Your task to perform on an android device: Open calendar and show me the fourth week of next month Image 0: 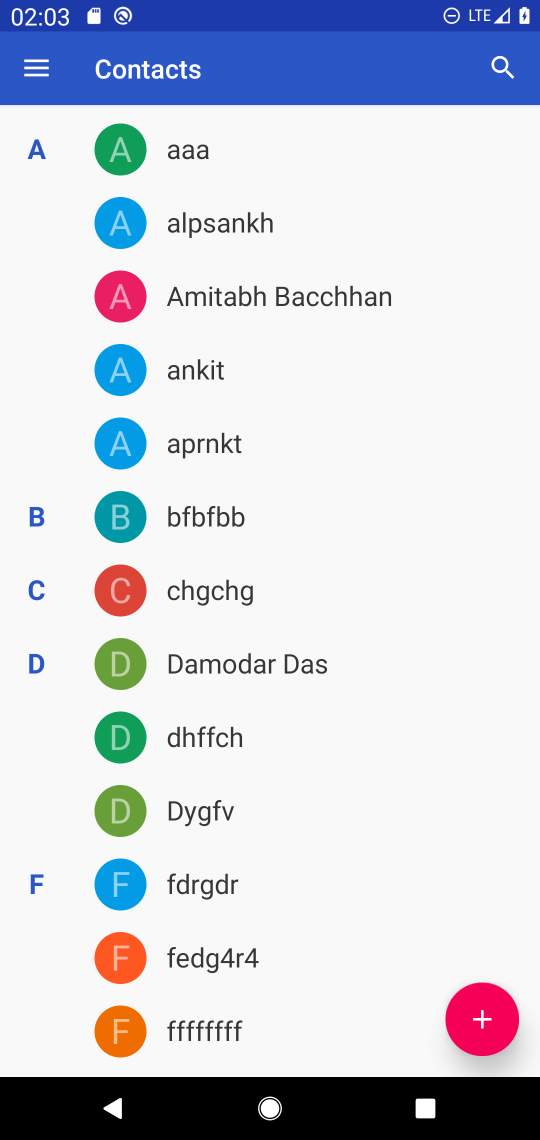
Step 0: press home button
Your task to perform on an android device: Open calendar and show me the fourth week of next month Image 1: 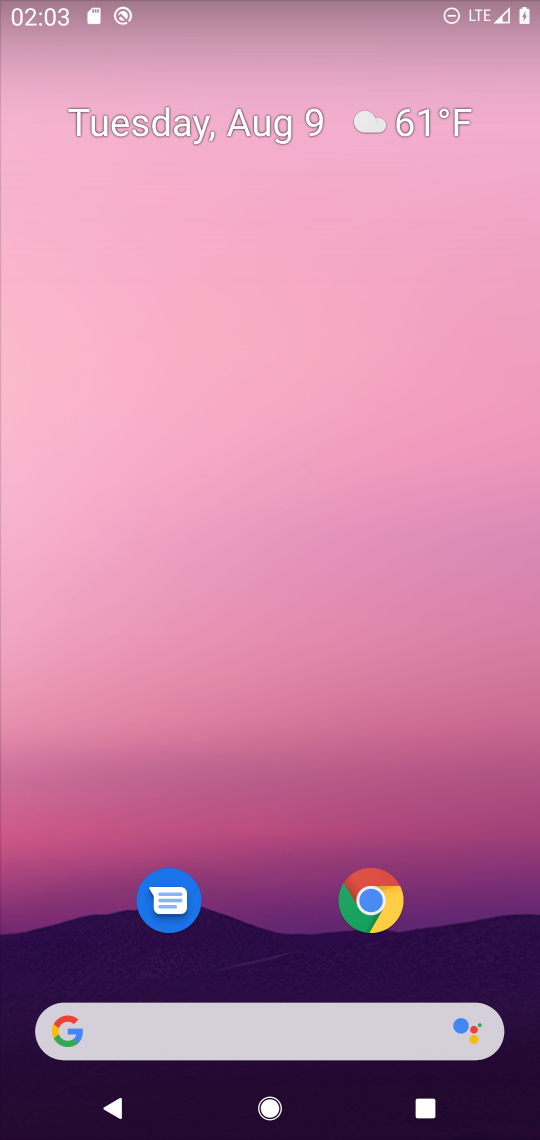
Step 1: drag from (259, 892) to (291, 35)
Your task to perform on an android device: Open calendar and show me the fourth week of next month Image 2: 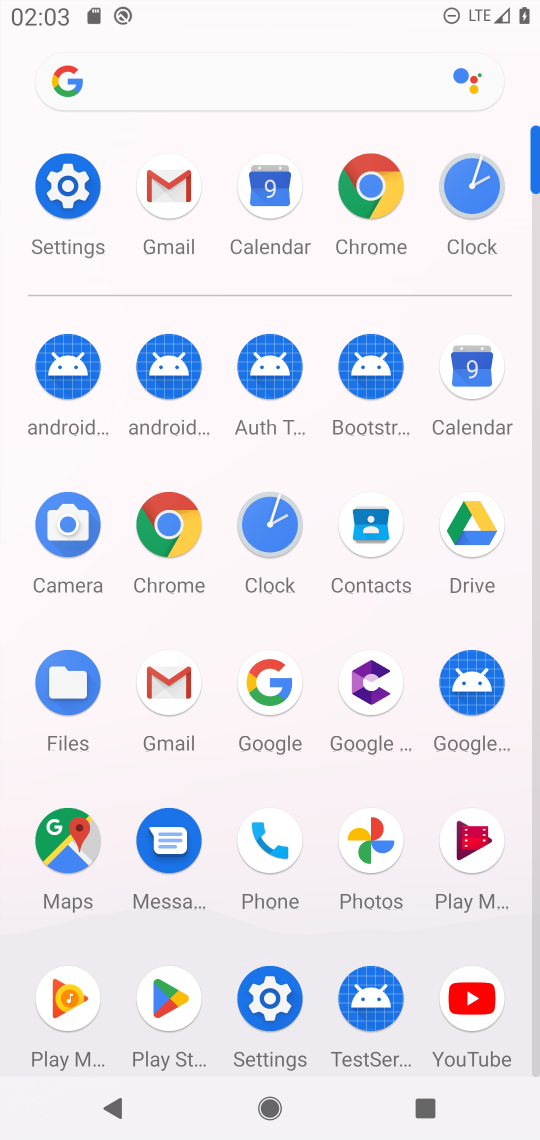
Step 2: click (463, 383)
Your task to perform on an android device: Open calendar and show me the fourth week of next month Image 3: 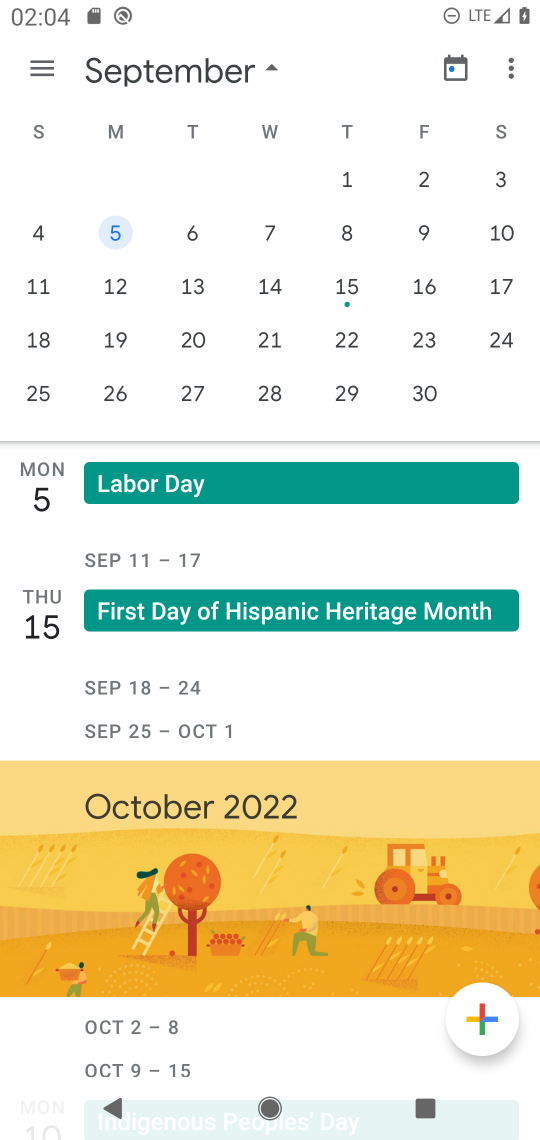
Step 3: click (112, 345)
Your task to perform on an android device: Open calendar and show me the fourth week of next month Image 4: 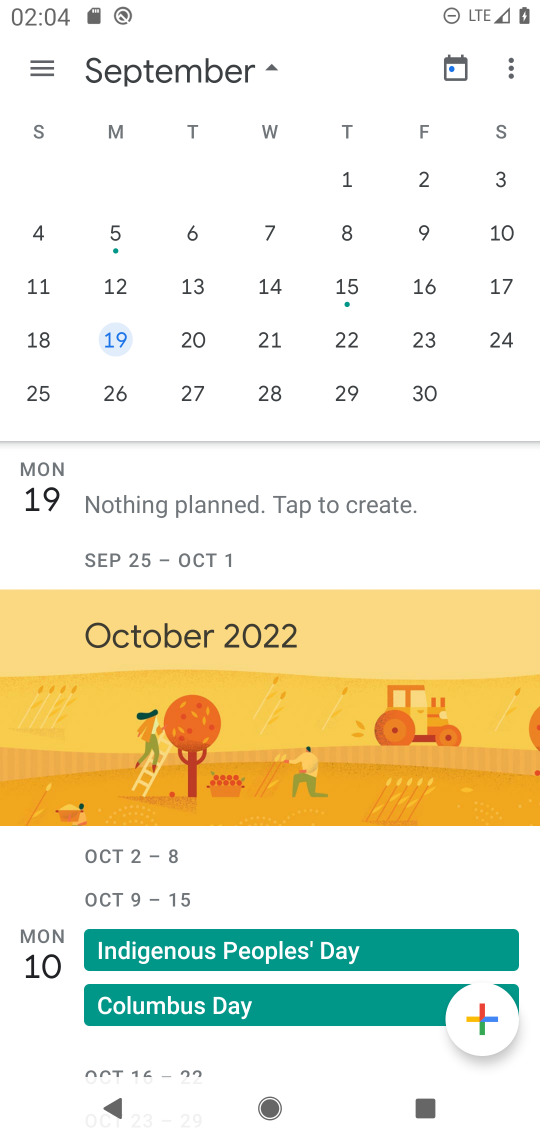
Step 4: task complete